Your task to perform on an android device: turn on location history Image 0: 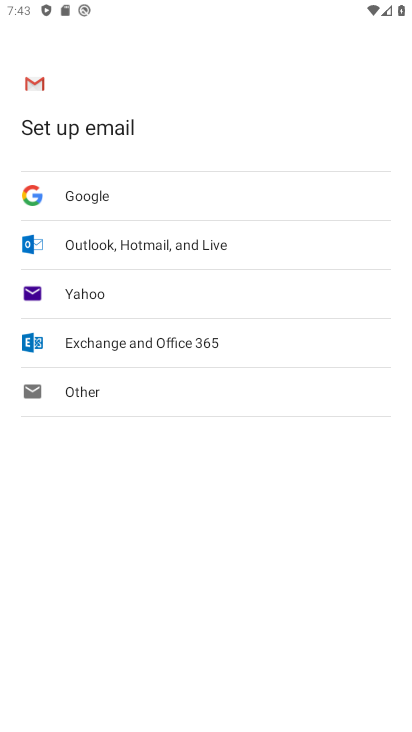
Step 0: press home button
Your task to perform on an android device: turn on location history Image 1: 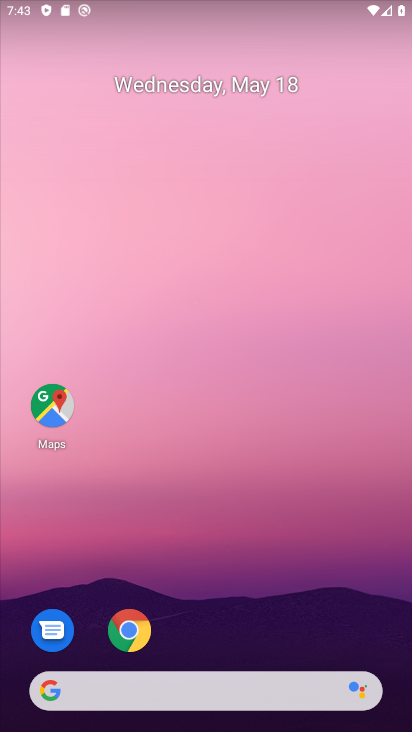
Step 1: click (53, 401)
Your task to perform on an android device: turn on location history Image 2: 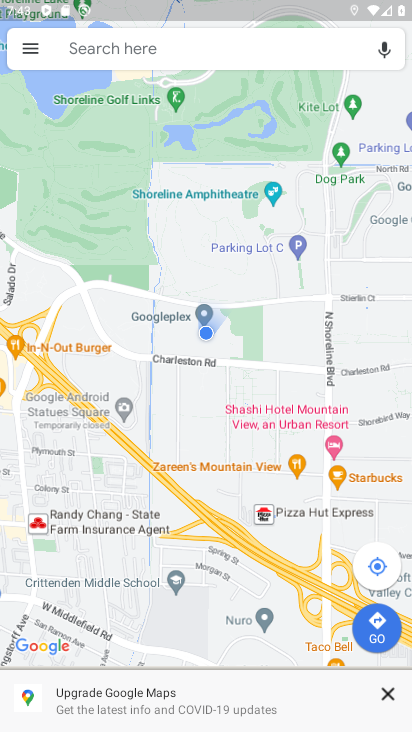
Step 2: click (31, 49)
Your task to perform on an android device: turn on location history Image 3: 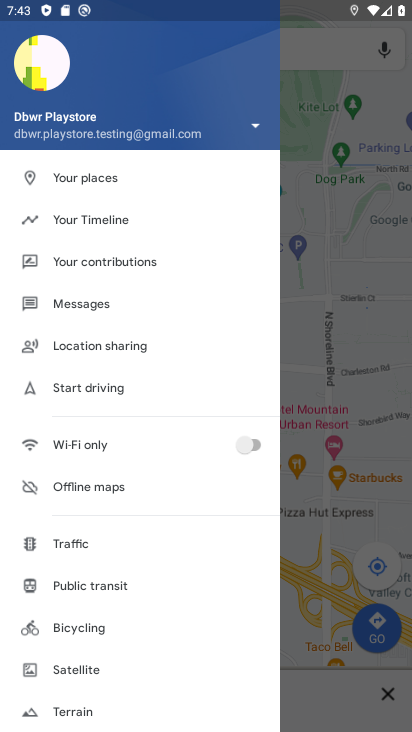
Step 3: click (91, 216)
Your task to perform on an android device: turn on location history Image 4: 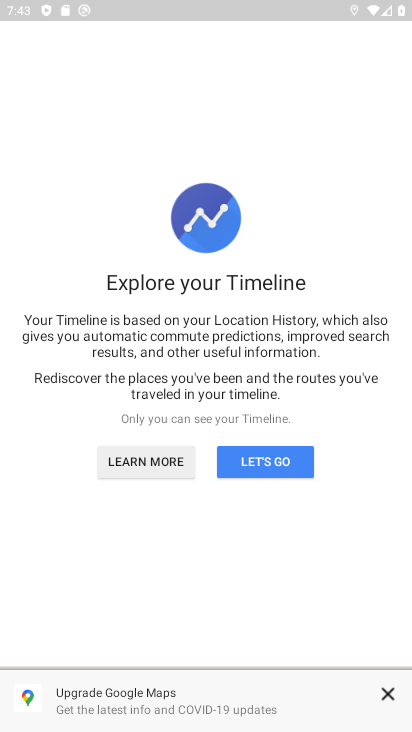
Step 4: click (253, 465)
Your task to perform on an android device: turn on location history Image 5: 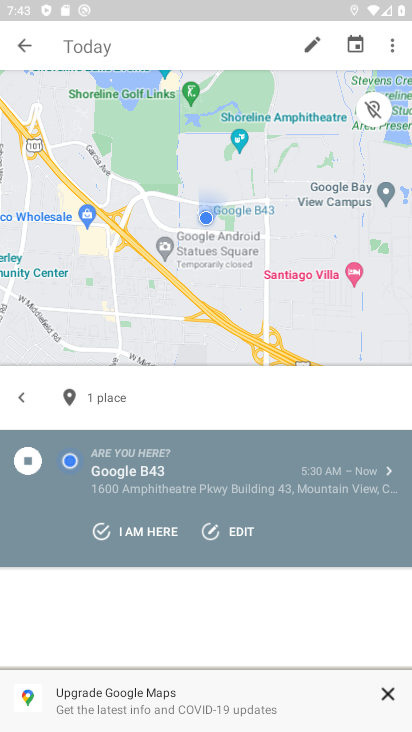
Step 5: click (392, 38)
Your task to perform on an android device: turn on location history Image 6: 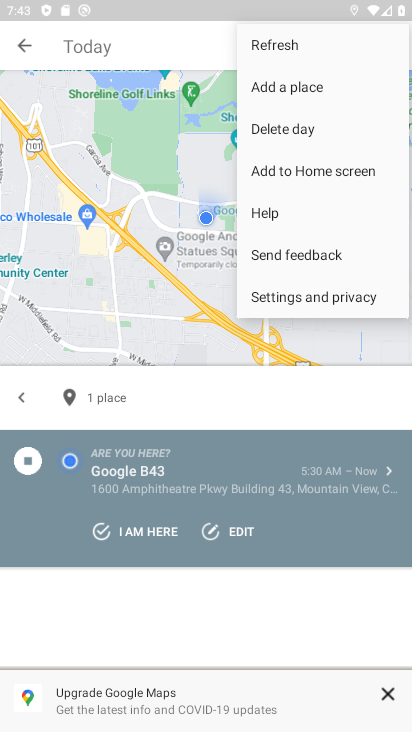
Step 6: click (316, 300)
Your task to perform on an android device: turn on location history Image 7: 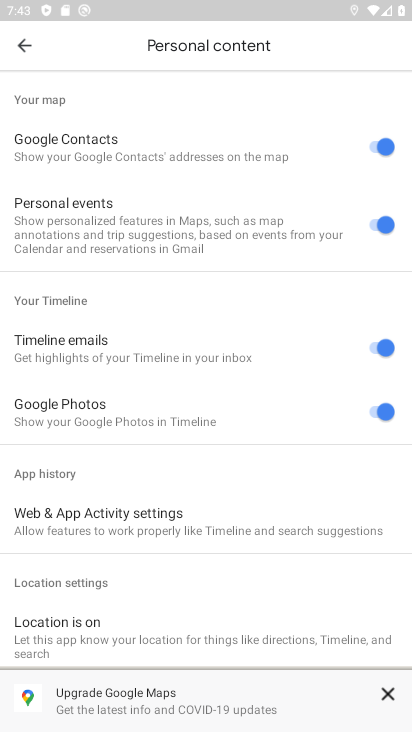
Step 7: drag from (234, 556) to (189, 299)
Your task to perform on an android device: turn on location history Image 8: 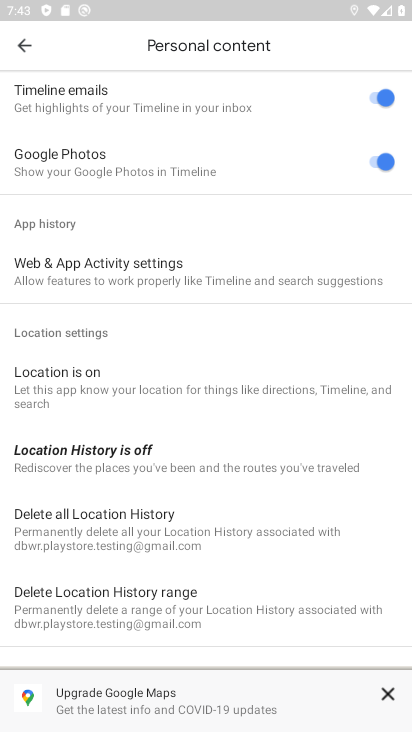
Step 8: click (94, 449)
Your task to perform on an android device: turn on location history Image 9: 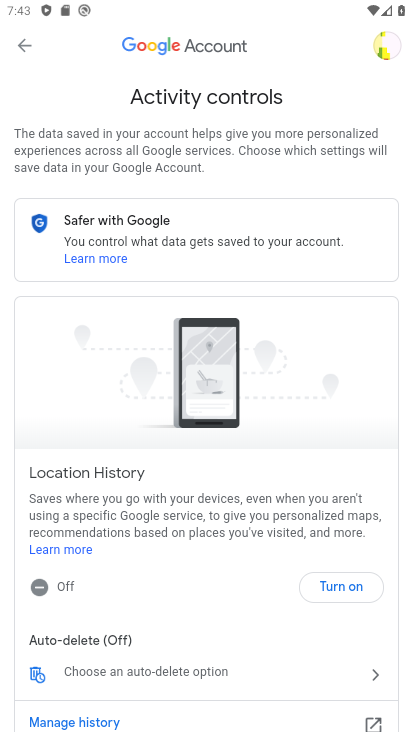
Step 9: click (342, 579)
Your task to perform on an android device: turn on location history Image 10: 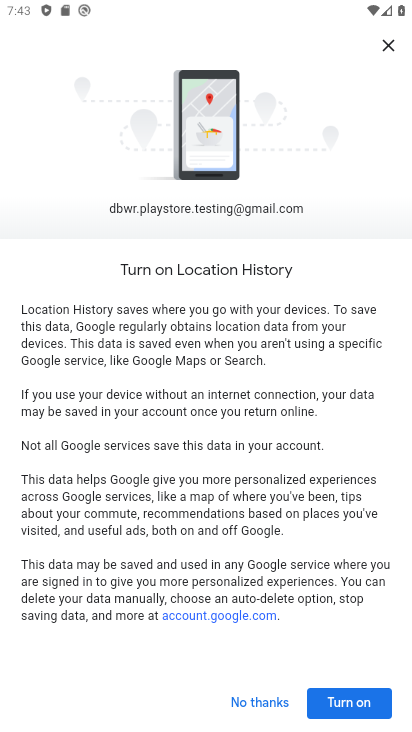
Step 10: click (350, 701)
Your task to perform on an android device: turn on location history Image 11: 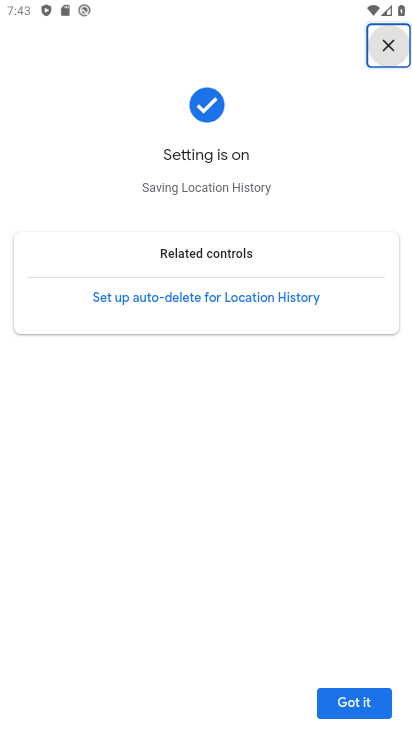
Step 11: click (367, 713)
Your task to perform on an android device: turn on location history Image 12: 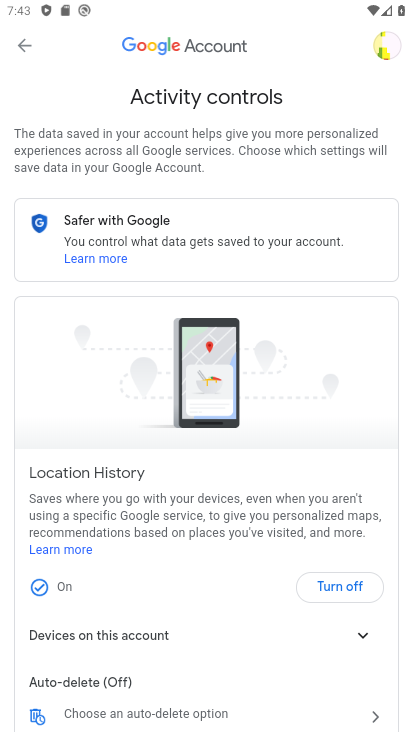
Step 12: task complete